Your task to perform on an android device: open a new tab in the chrome app Image 0: 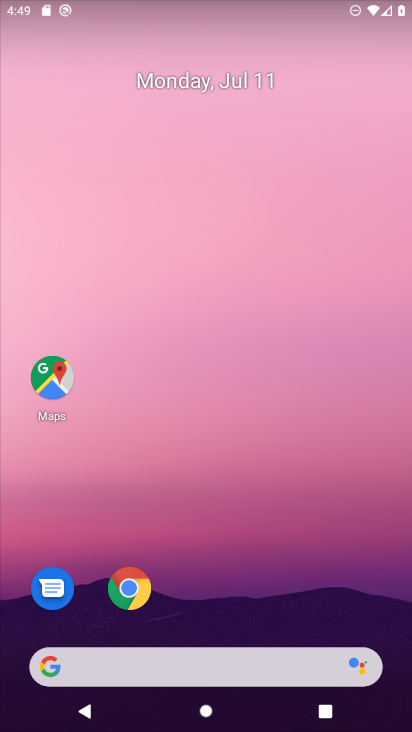
Step 0: press home button
Your task to perform on an android device: open a new tab in the chrome app Image 1: 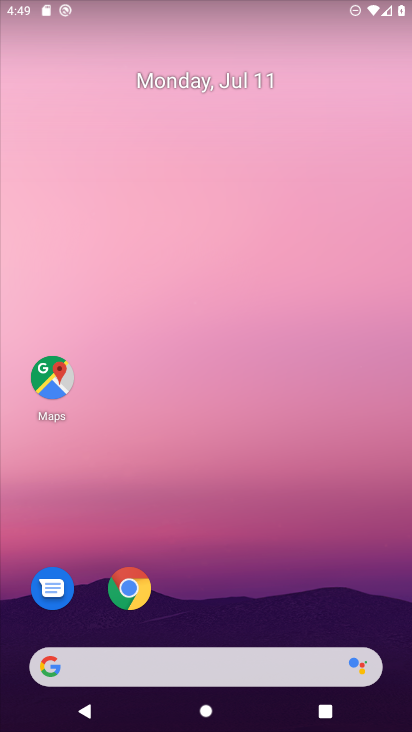
Step 1: drag from (239, 634) to (236, 82)
Your task to perform on an android device: open a new tab in the chrome app Image 2: 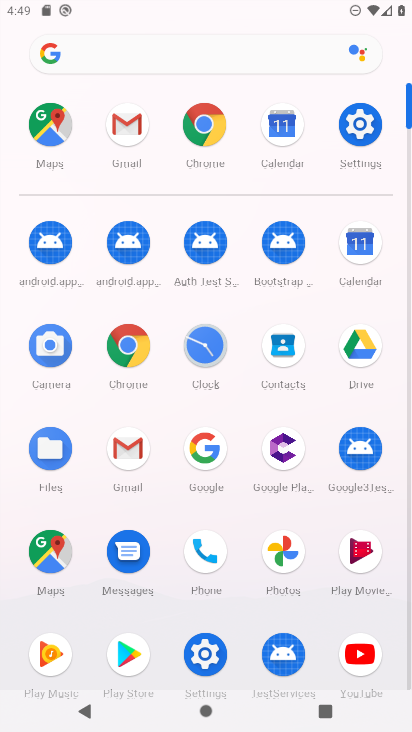
Step 2: click (208, 123)
Your task to perform on an android device: open a new tab in the chrome app Image 3: 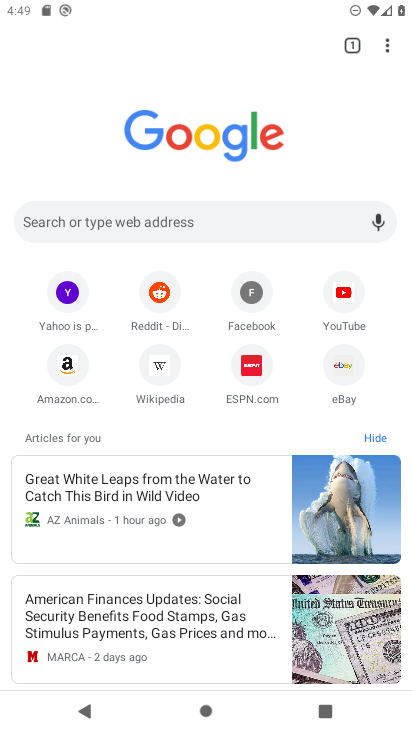
Step 3: click (353, 47)
Your task to perform on an android device: open a new tab in the chrome app Image 4: 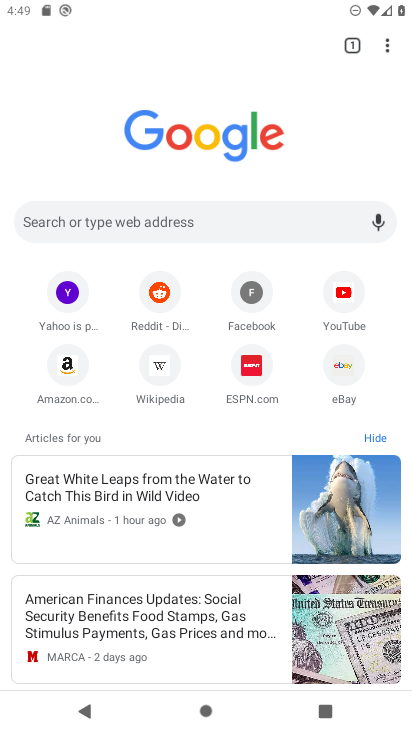
Step 4: click (360, 44)
Your task to perform on an android device: open a new tab in the chrome app Image 5: 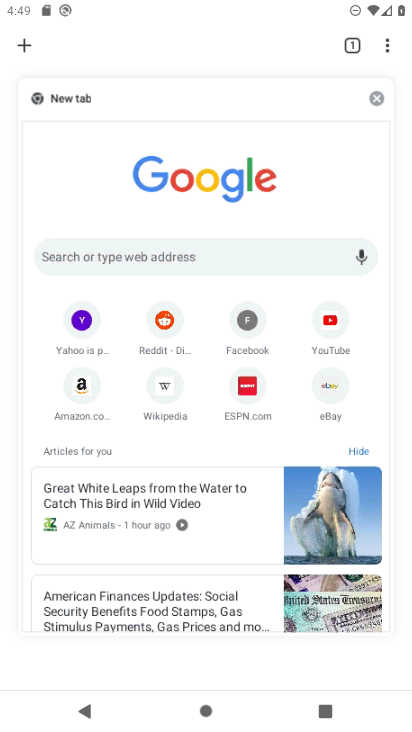
Step 5: click (26, 45)
Your task to perform on an android device: open a new tab in the chrome app Image 6: 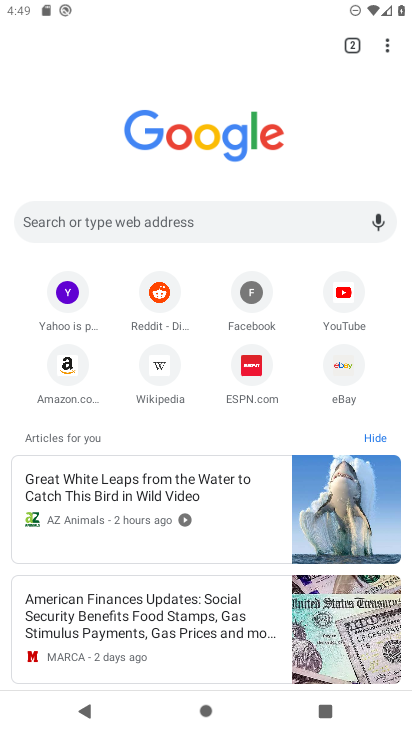
Step 6: task complete